Your task to perform on an android device: Go to accessibility settings Image 0: 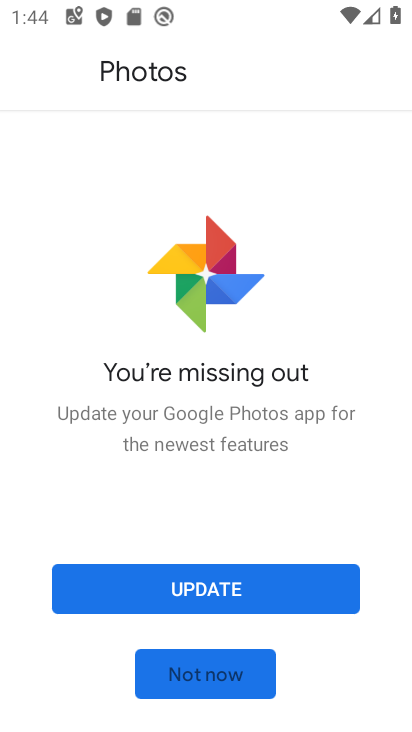
Step 0: press home button
Your task to perform on an android device: Go to accessibility settings Image 1: 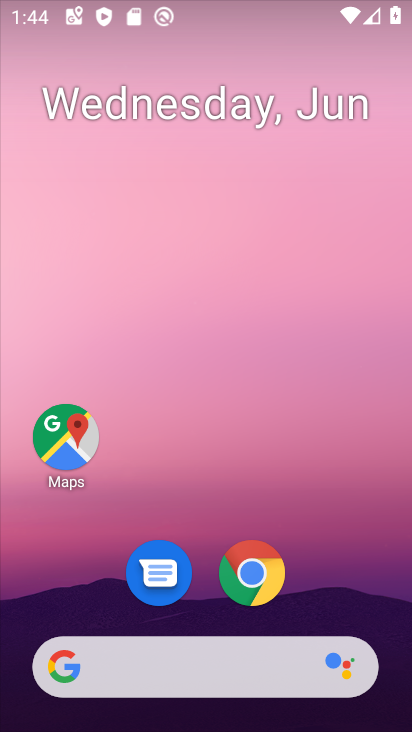
Step 1: drag from (277, 472) to (277, 250)
Your task to perform on an android device: Go to accessibility settings Image 2: 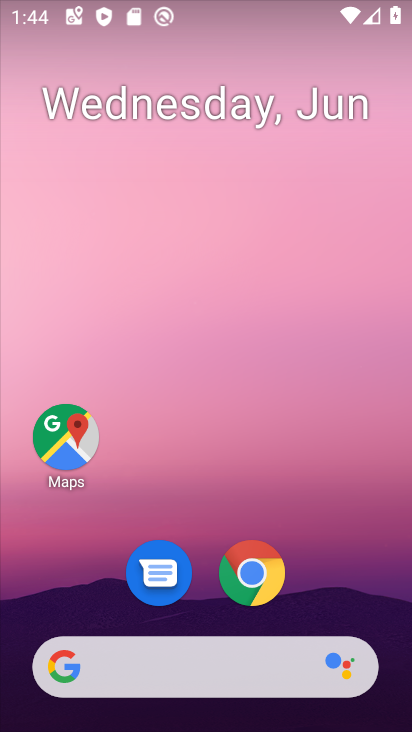
Step 2: drag from (331, 550) to (331, 235)
Your task to perform on an android device: Go to accessibility settings Image 3: 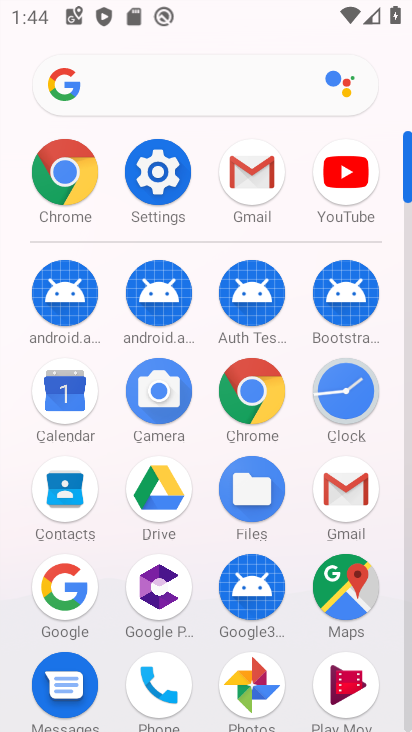
Step 3: click (177, 192)
Your task to perform on an android device: Go to accessibility settings Image 4: 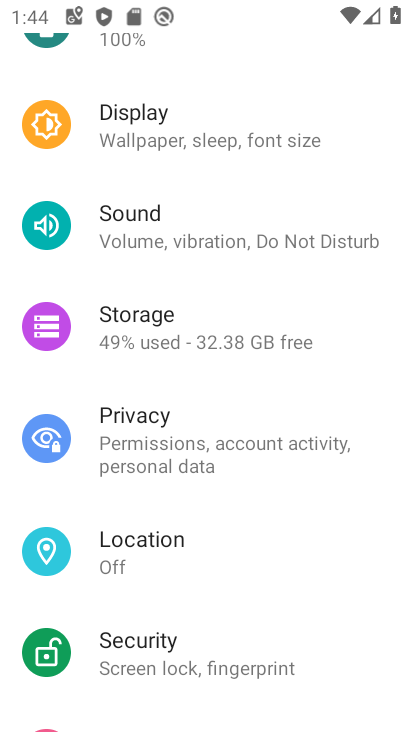
Step 4: drag from (260, 636) to (266, 404)
Your task to perform on an android device: Go to accessibility settings Image 5: 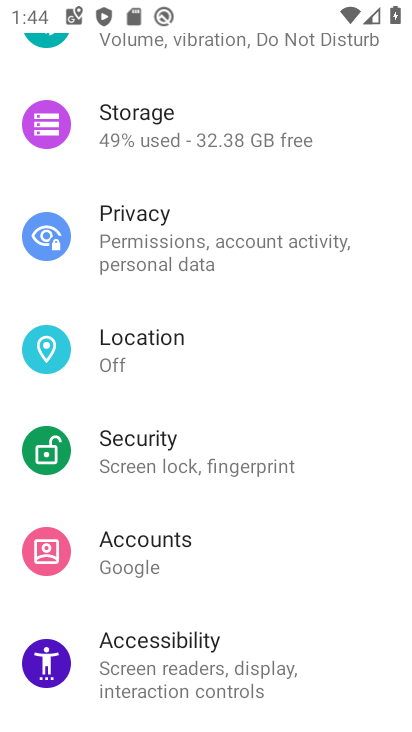
Step 5: click (242, 670)
Your task to perform on an android device: Go to accessibility settings Image 6: 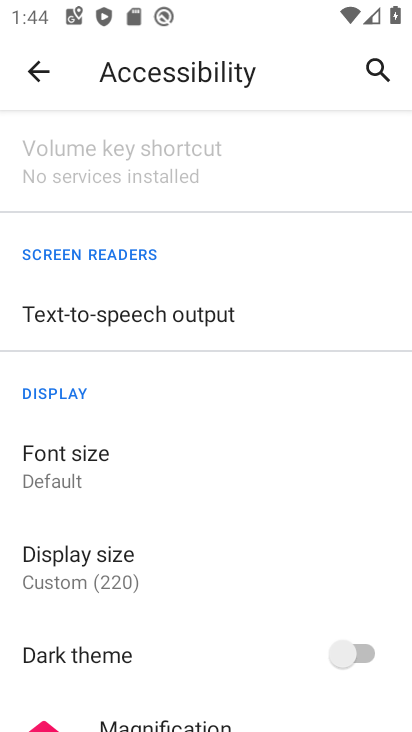
Step 6: task complete